Your task to perform on an android device: turn on notifications settings in the gmail app Image 0: 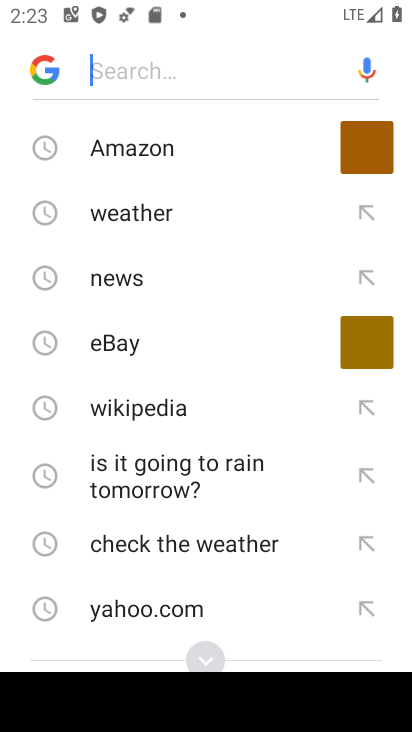
Step 0: press back button
Your task to perform on an android device: turn on notifications settings in the gmail app Image 1: 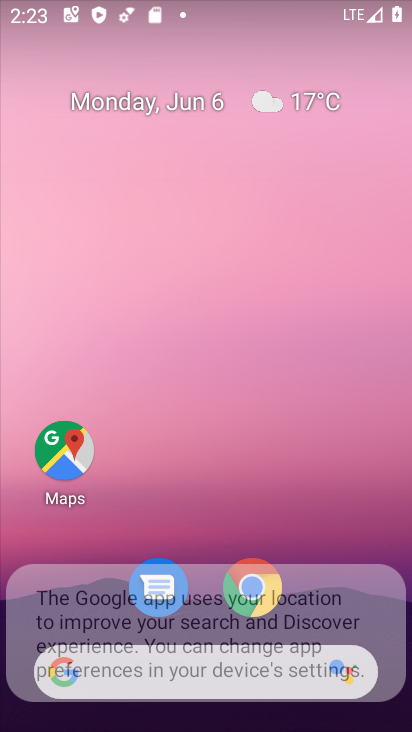
Step 1: drag from (276, 483) to (251, 43)
Your task to perform on an android device: turn on notifications settings in the gmail app Image 2: 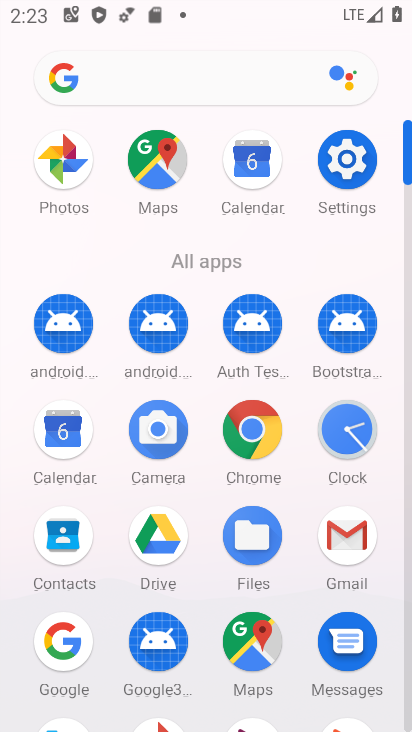
Step 2: drag from (18, 554) to (11, 252)
Your task to perform on an android device: turn on notifications settings in the gmail app Image 3: 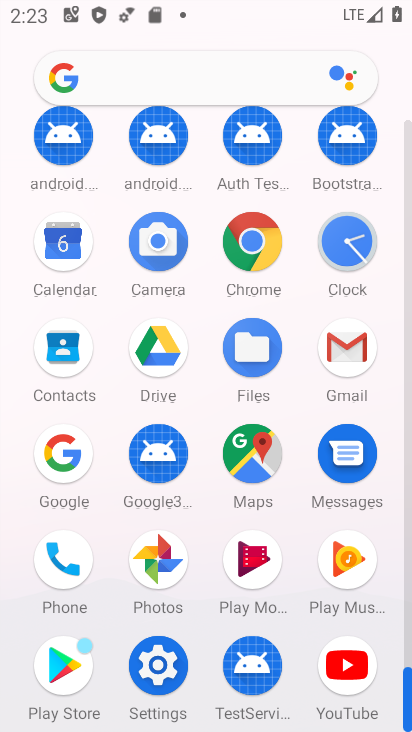
Step 3: click (348, 344)
Your task to perform on an android device: turn on notifications settings in the gmail app Image 4: 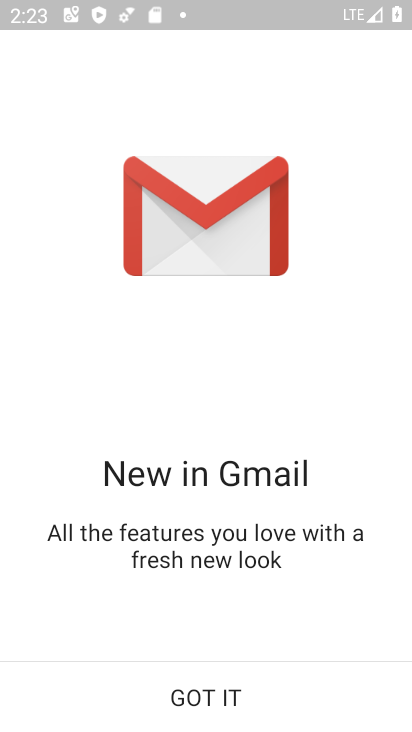
Step 4: click (184, 674)
Your task to perform on an android device: turn on notifications settings in the gmail app Image 5: 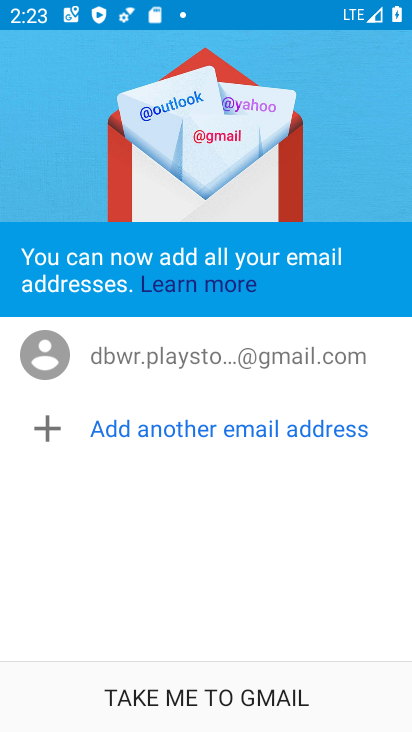
Step 5: click (192, 695)
Your task to perform on an android device: turn on notifications settings in the gmail app Image 6: 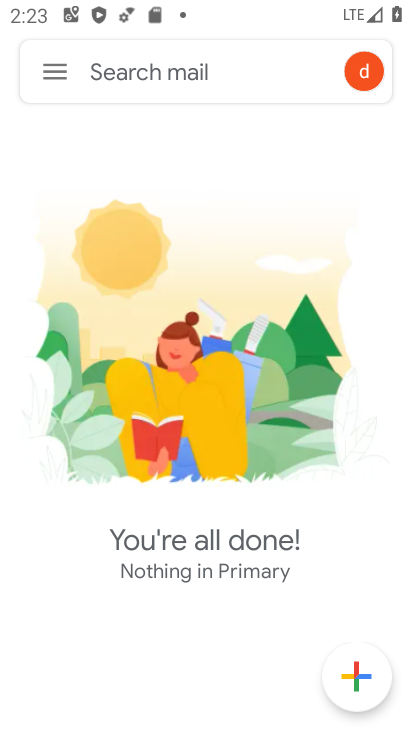
Step 6: click (44, 71)
Your task to perform on an android device: turn on notifications settings in the gmail app Image 7: 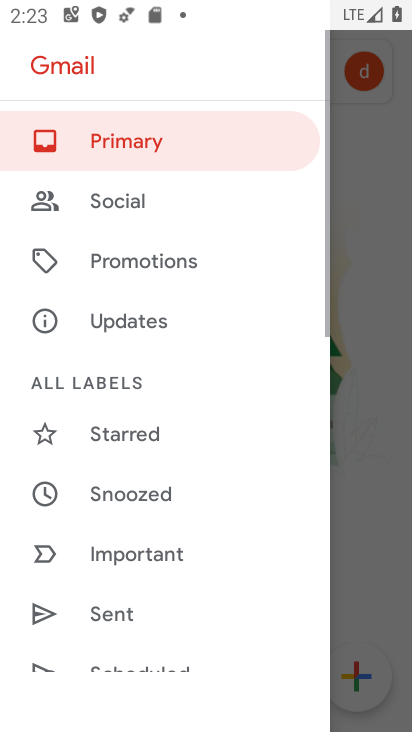
Step 7: drag from (223, 594) to (225, 128)
Your task to perform on an android device: turn on notifications settings in the gmail app Image 8: 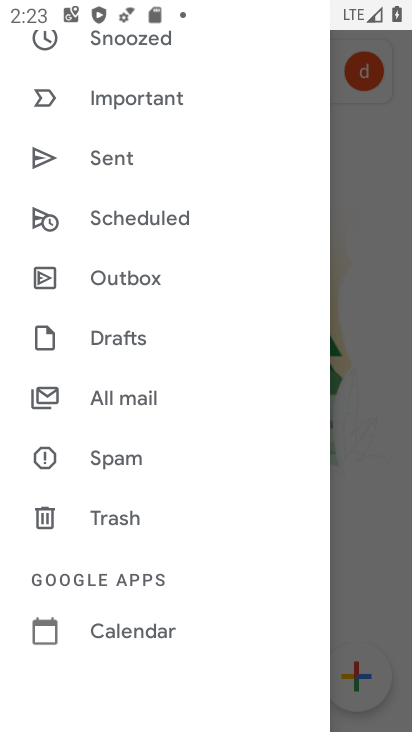
Step 8: drag from (214, 574) to (229, 152)
Your task to perform on an android device: turn on notifications settings in the gmail app Image 9: 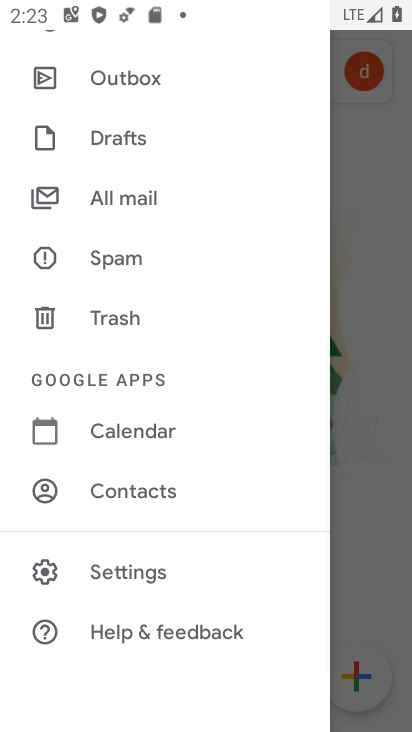
Step 9: click (149, 569)
Your task to perform on an android device: turn on notifications settings in the gmail app Image 10: 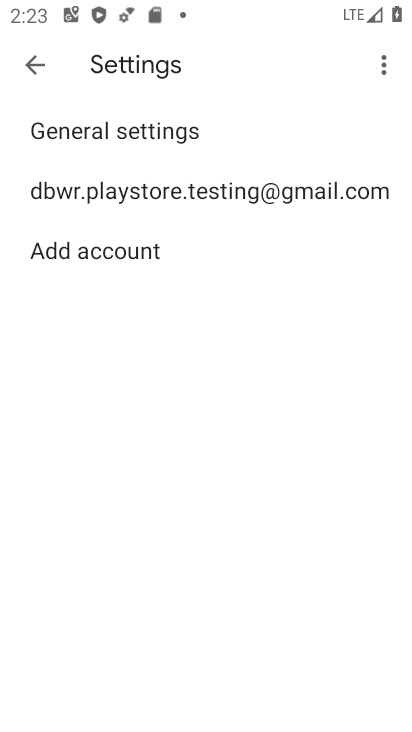
Step 10: click (163, 164)
Your task to perform on an android device: turn on notifications settings in the gmail app Image 11: 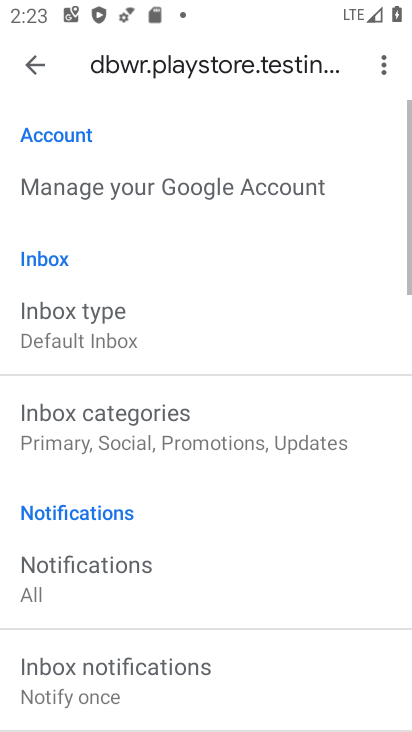
Step 11: drag from (206, 554) to (257, 220)
Your task to perform on an android device: turn on notifications settings in the gmail app Image 12: 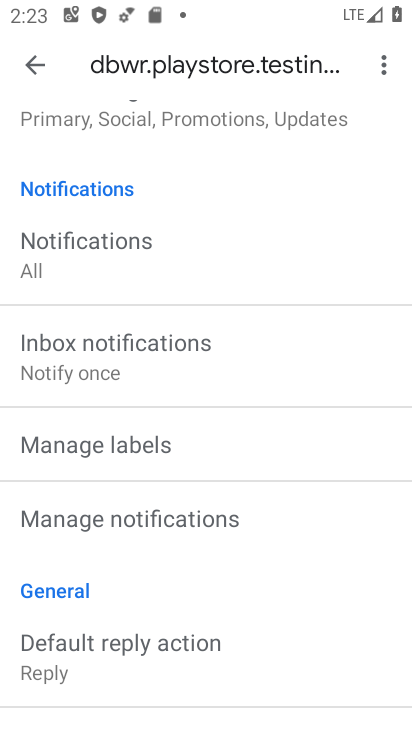
Step 12: click (134, 517)
Your task to perform on an android device: turn on notifications settings in the gmail app Image 13: 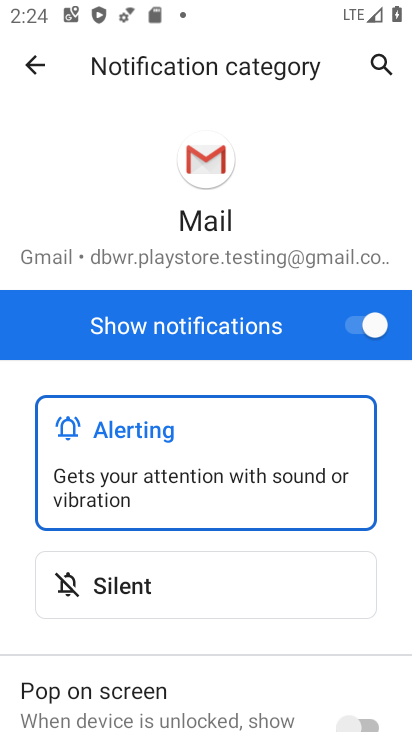
Step 13: task complete